Your task to perform on an android device: turn notification dots on Image 0: 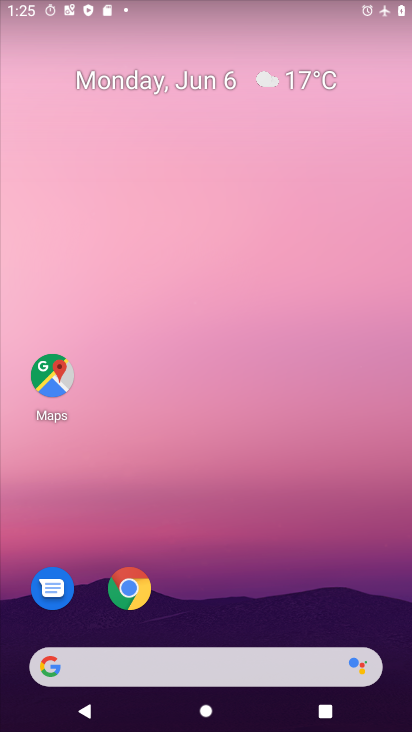
Step 0: drag from (243, 252) to (186, 29)
Your task to perform on an android device: turn notification dots on Image 1: 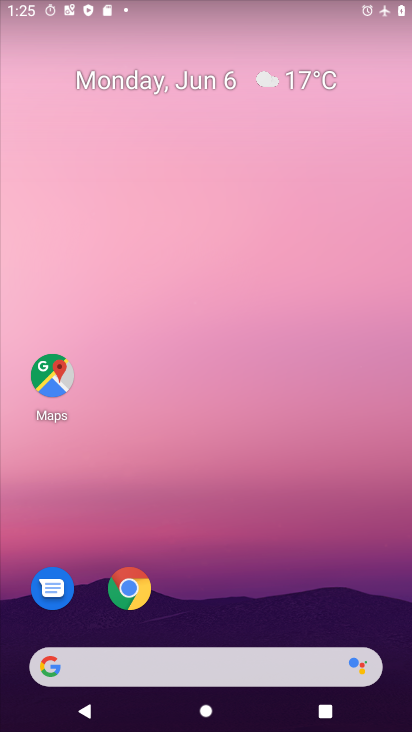
Step 1: drag from (262, 465) to (167, 1)
Your task to perform on an android device: turn notification dots on Image 2: 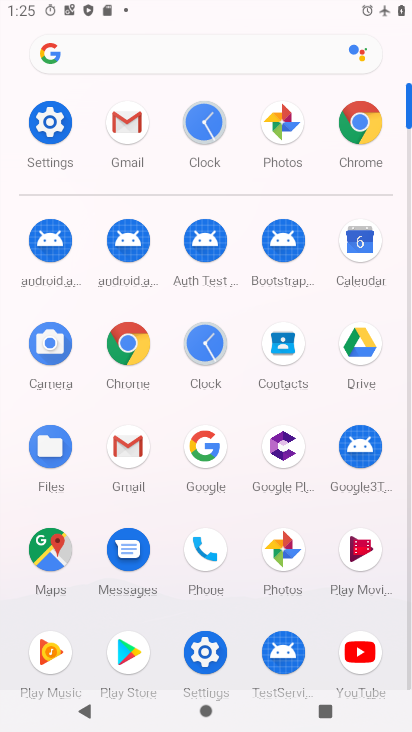
Step 2: click (48, 131)
Your task to perform on an android device: turn notification dots on Image 3: 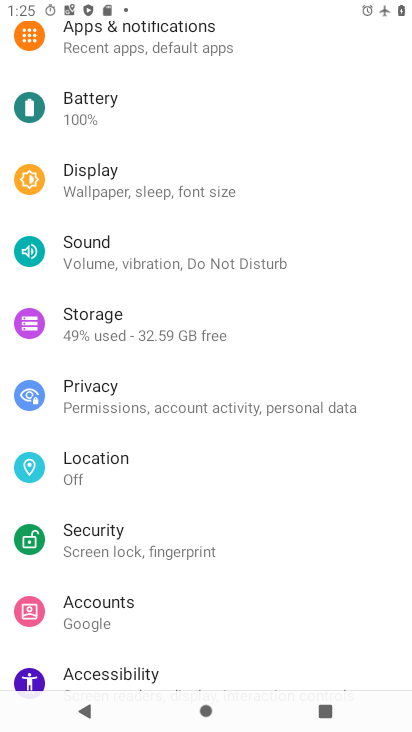
Step 3: click (178, 50)
Your task to perform on an android device: turn notification dots on Image 4: 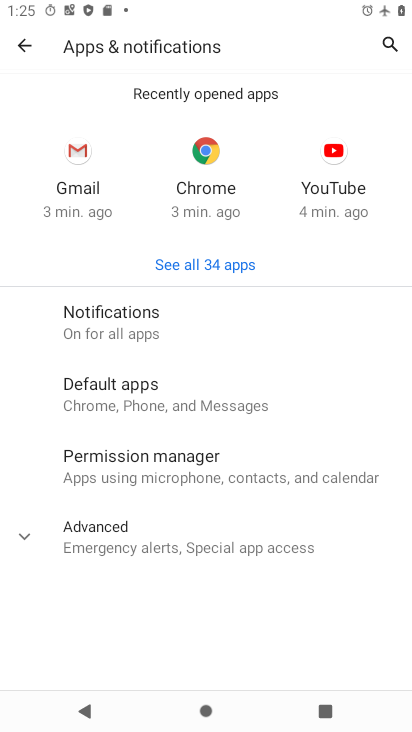
Step 4: click (172, 331)
Your task to perform on an android device: turn notification dots on Image 5: 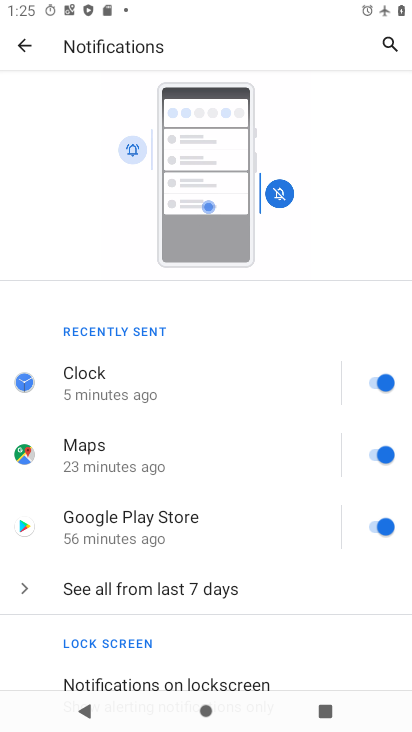
Step 5: drag from (313, 606) to (290, 150)
Your task to perform on an android device: turn notification dots on Image 6: 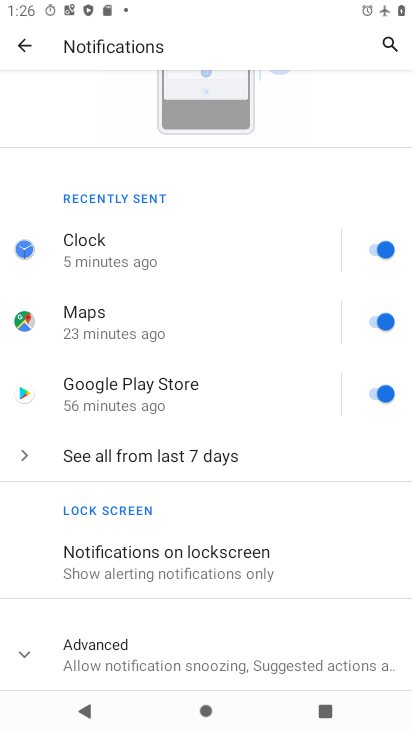
Step 6: click (162, 688)
Your task to perform on an android device: turn notification dots on Image 7: 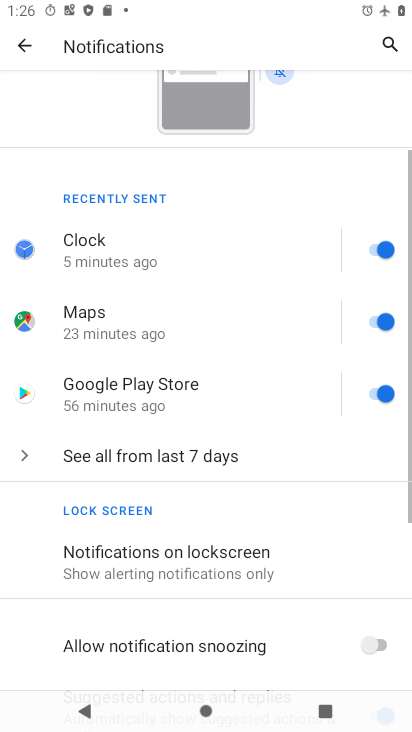
Step 7: drag from (182, 608) to (181, 362)
Your task to perform on an android device: turn notification dots on Image 8: 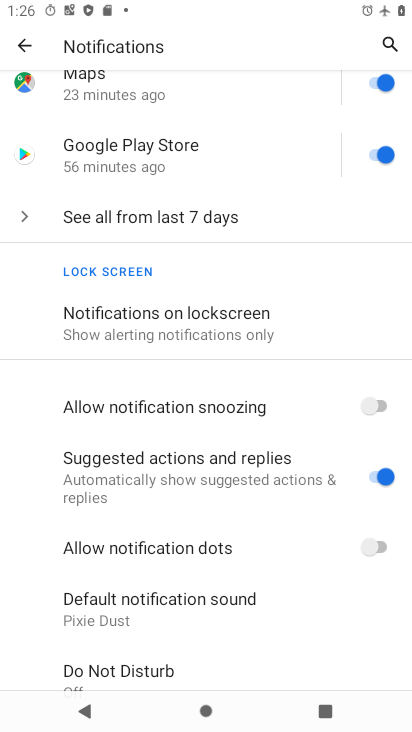
Step 8: click (369, 543)
Your task to perform on an android device: turn notification dots on Image 9: 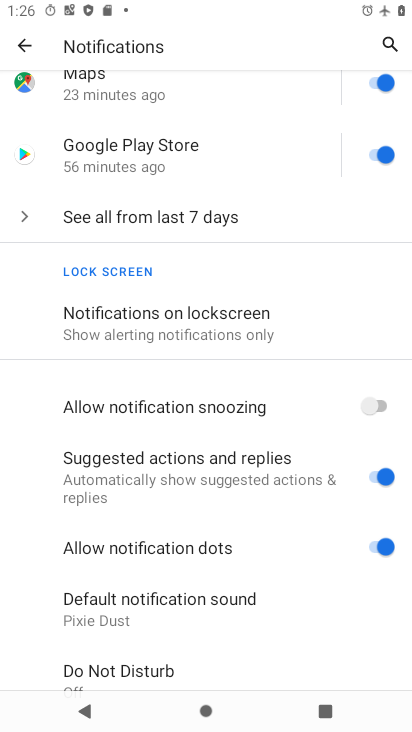
Step 9: task complete